Your task to perform on an android device: Search for sushi restaurants on Maps Image 0: 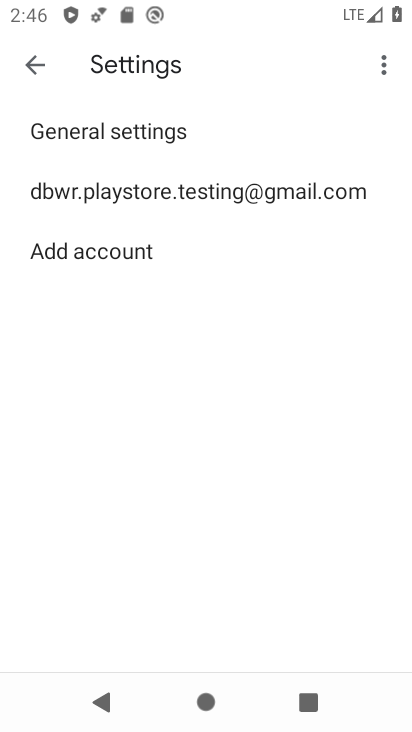
Step 0: press home button
Your task to perform on an android device: Search for sushi restaurants on Maps Image 1: 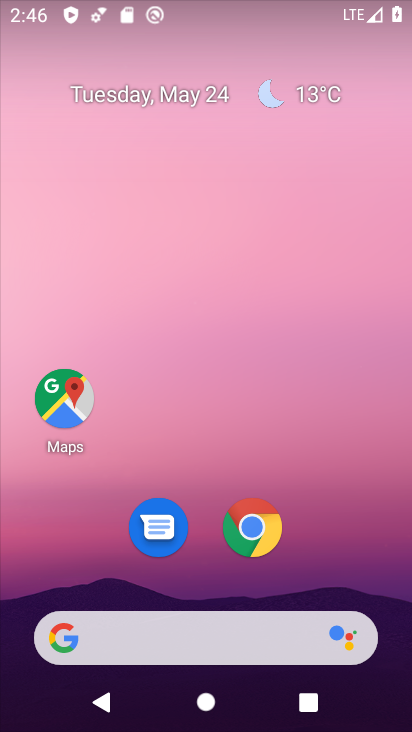
Step 1: click (67, 402)
Your task to perform on an android device: Search for sushi restaurants on Maps Image 2: 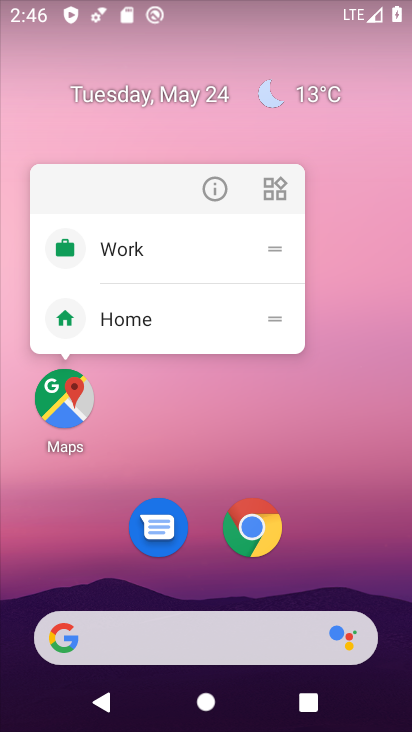
Step 2: click (67, 402)
Your task to perform on an android device: Search for sushi restaurants on Maps Image 3: 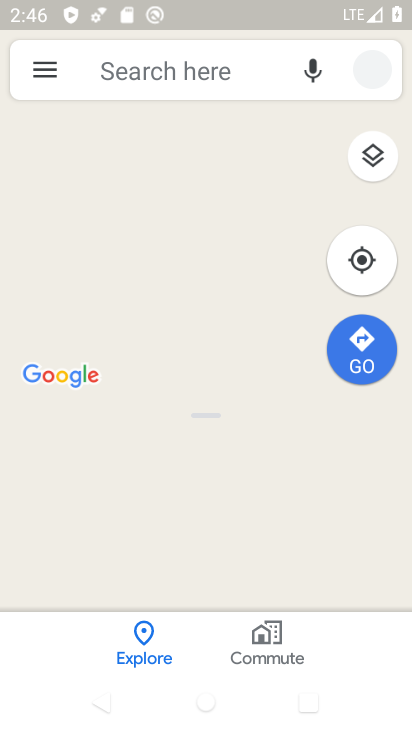
Step 3: click (200, 81)
Your task to perform on an android device: Search for sushi restaurants on Maps Image 4: 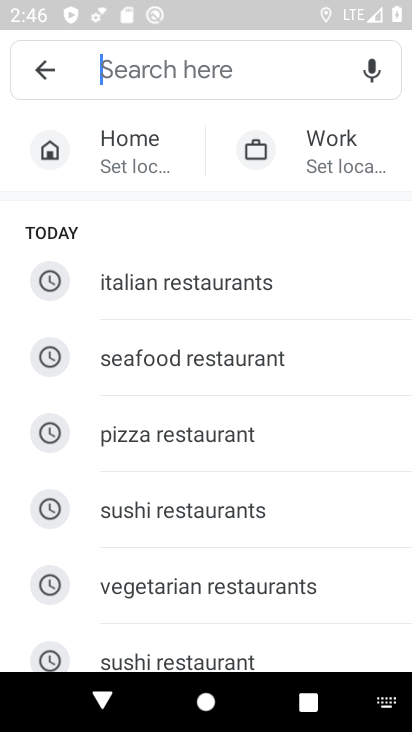
Step 4: type "sushi restaurants"
Your task to perform on an android device: Search for sushi restaurants on Maps Image 5: 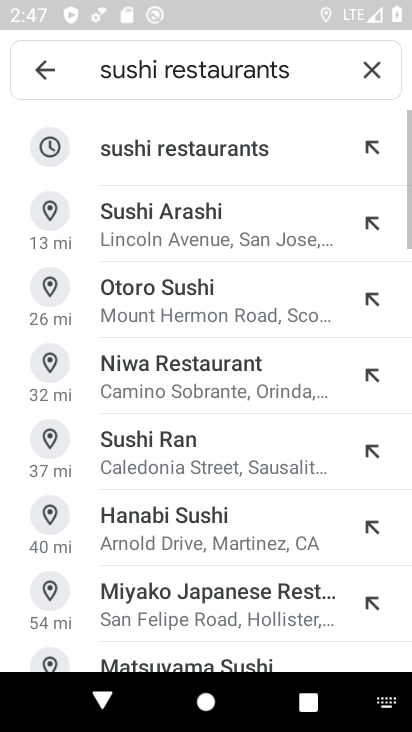
Step 5: click (301, 148)
Your task to perform on an android device: Search for sushi restaurants on Maps Image 6: 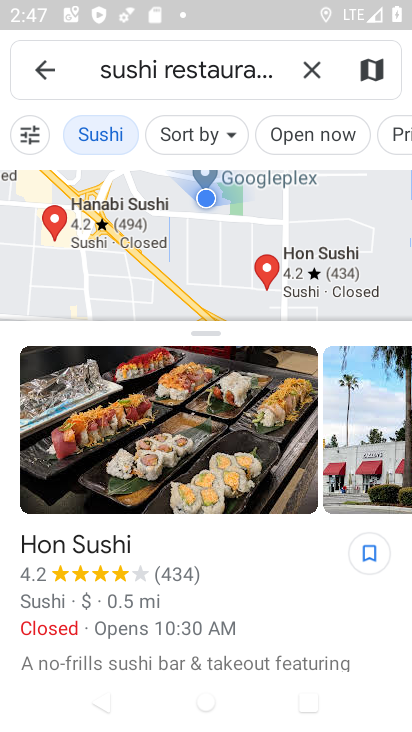
Step 6: task complete